Your task to perform on an android device: change timer sound Image 0: 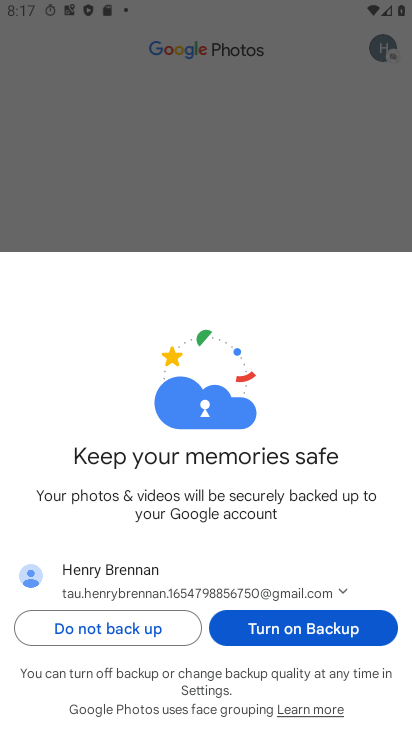
Step 0: press home button
Your task to perform on an android device: change timer sound Image 1: 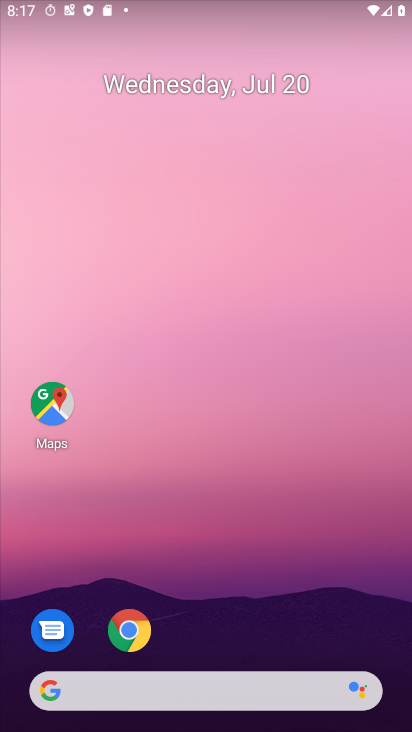
Step 1: drag from (232, 661) to (276, 158)
Your task to perform on an android device: change timer sound Image 2: 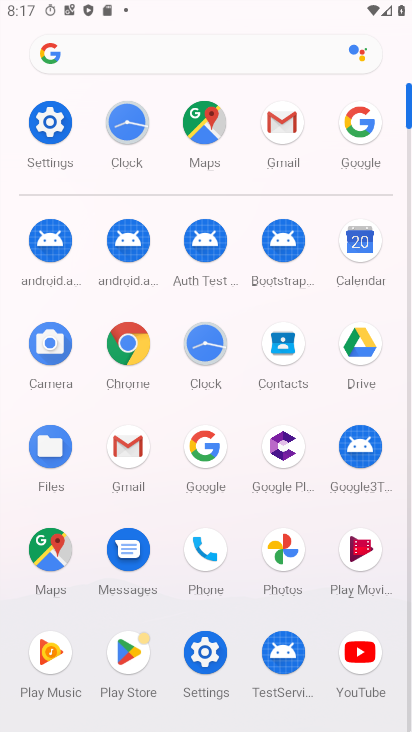
Step 2: click (209, 366)
Your task to perform on an android device: change timer sound Image 3: 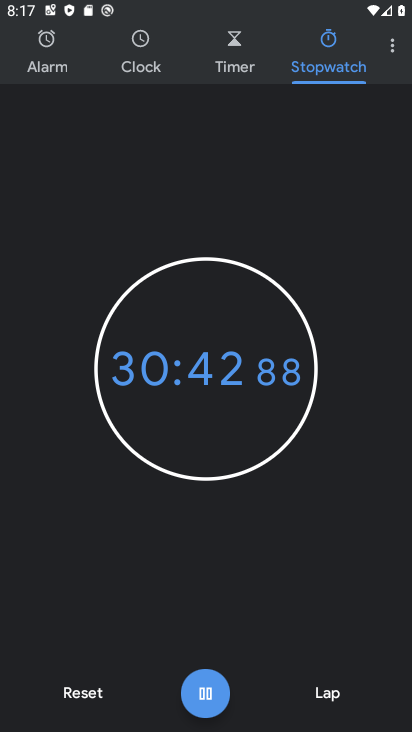
Step 3: click (397, 60)
Your task to perform on an android device: change timer sound Image 4: 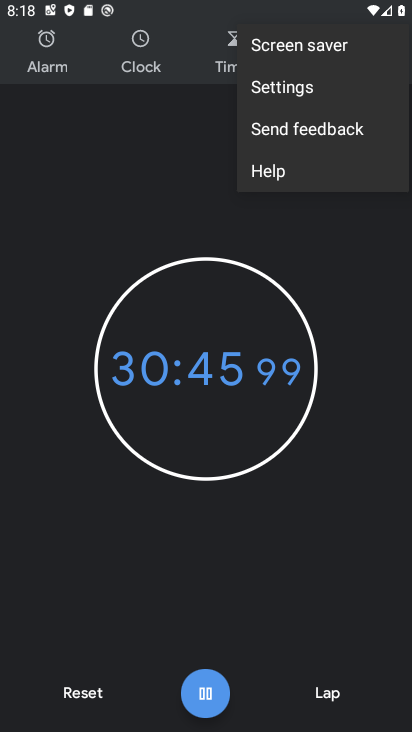
Step 4: click (299, 90)
Your task to perform on an android device: change timer sound Image 5: 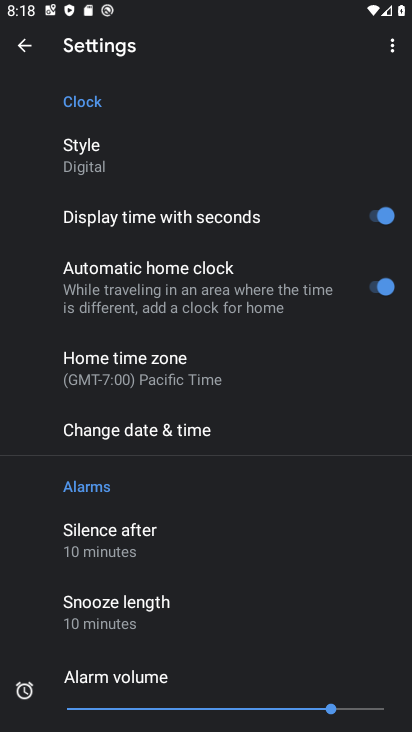
Step 5: drag from (247, 552) to (258, 298)
Your task to perform on an android device: change timer sound Image 6: 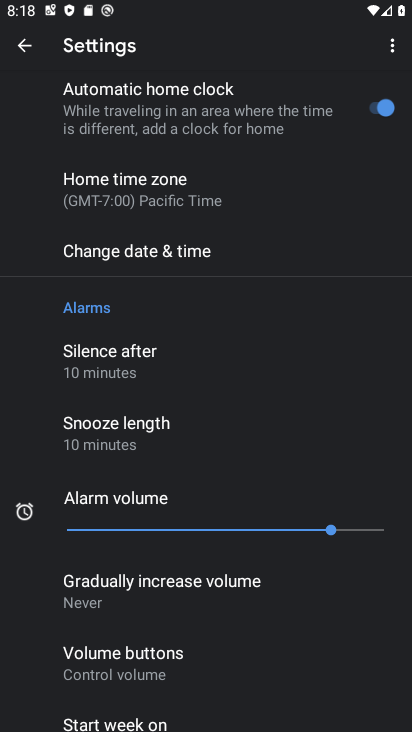
Step 6: drag from (235, 552) to (264, 275)
Your task to perform on an android device: change timer sound Image 7: 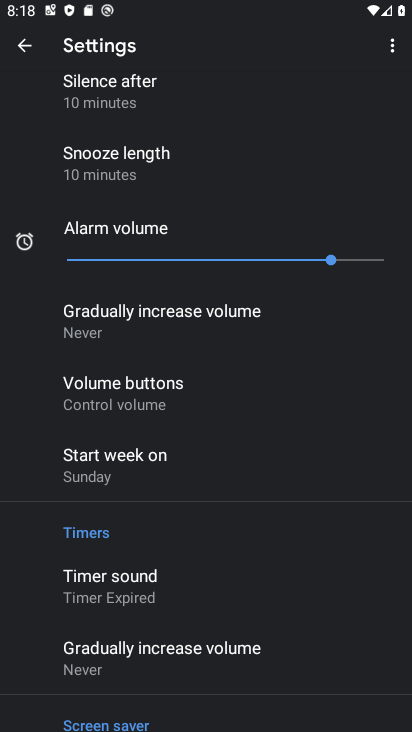
Step 7: click (131, 590)
Your task to perform on an android device: change timer sound Image 8: 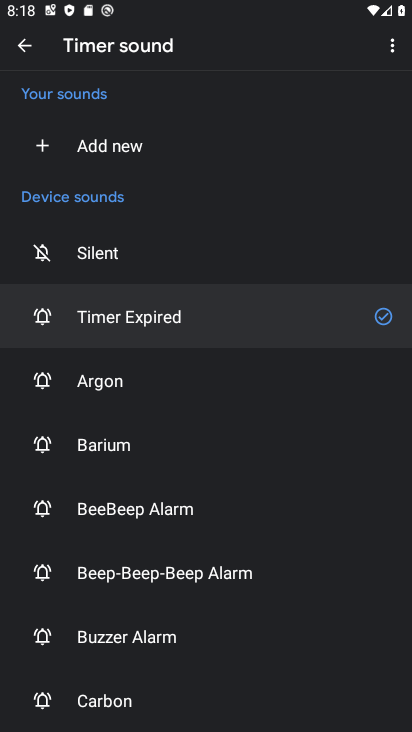
Step 8: click (92, 385)
Your task to perform on an android device: change timer sound Image 9: 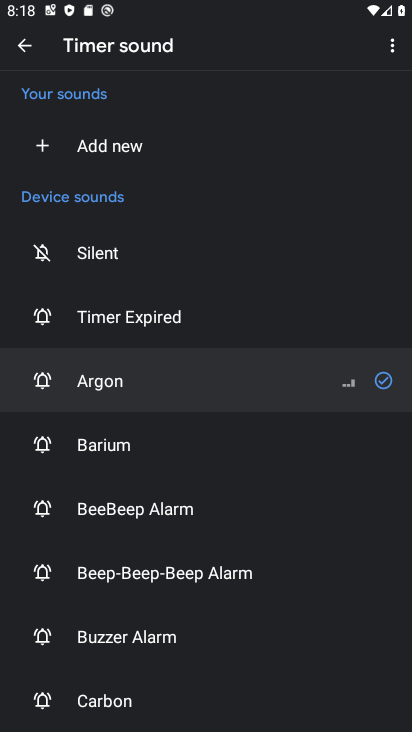
Step 9: task complete